Your task to perform on an android device: Open the calendar and show me this week's events? Image 0: 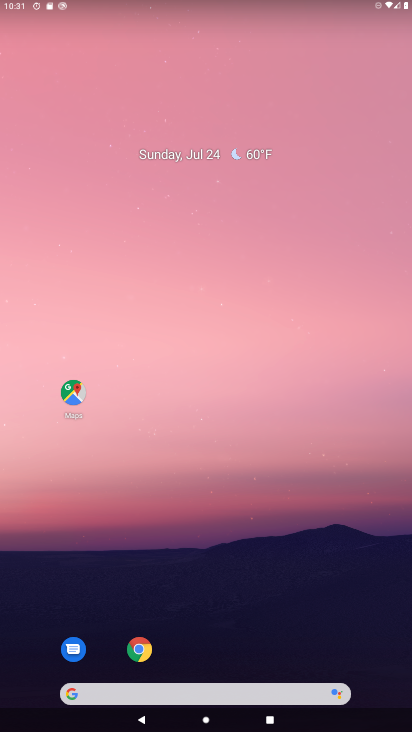
Step 0: drag from (279, 613) to (139, 0)
Your task to perform on an android device: Open the calendar and show me this week's events? Image 1: 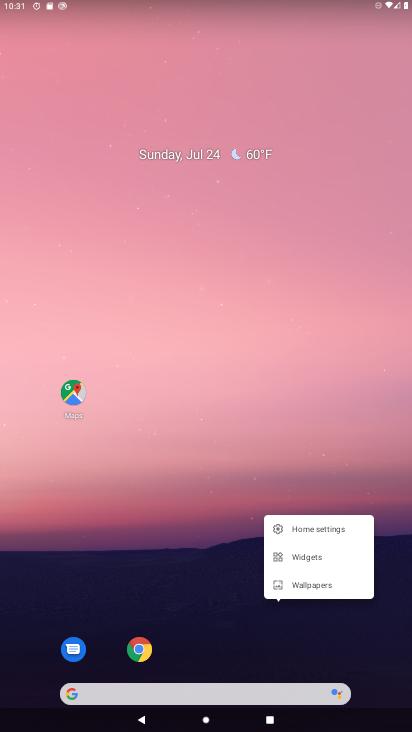
Step 1: click (168, 438)
Your task to perform on an android device: Open the calendar and show me this week's events? Image 2: 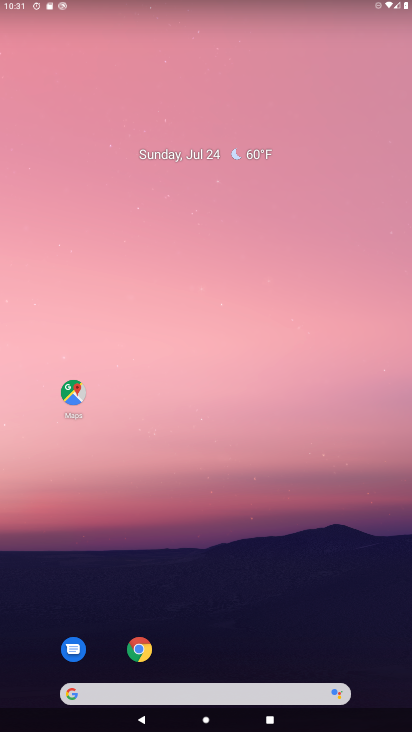
Step 2: drag from (240, 648) to (168, 57)
Your task to perform on an android device: Open the calendar and show me this week's events? Image 3: 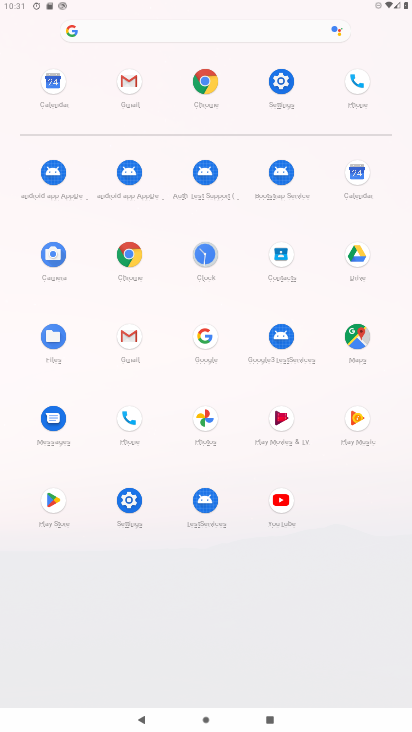
Step 3: click (358, 174)
Your task to perform on an android device: Open the calendar and show me this week's events? Image 4: 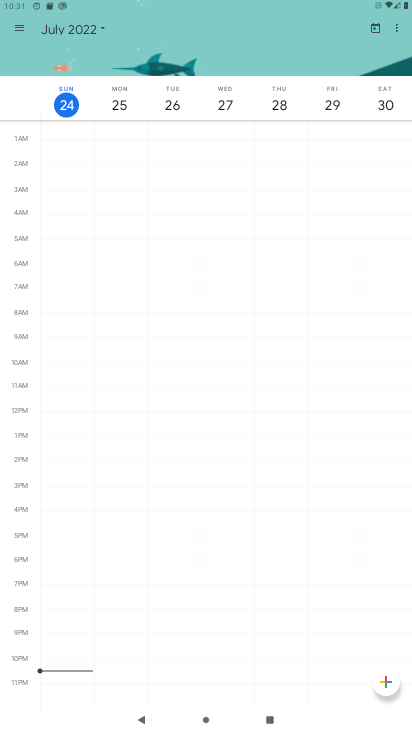
Step 4: task complete